Your task to perform on an android device: Search for pizza restaurants on Maps Image 0: 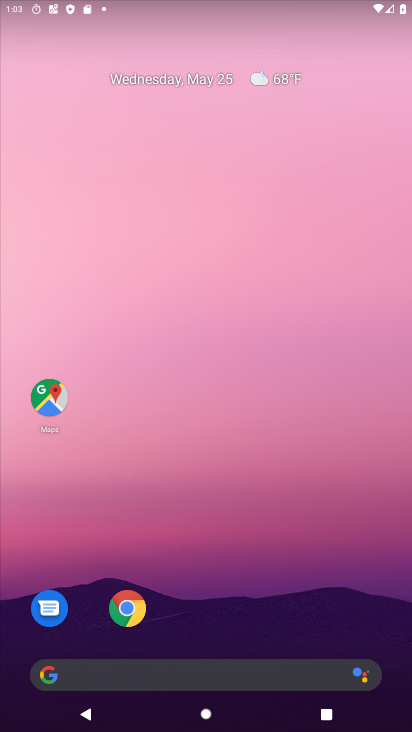
Step 0: click (59, 403)
Your task to perform on an android device: Search for pizza restaurants on Maps Image 1: 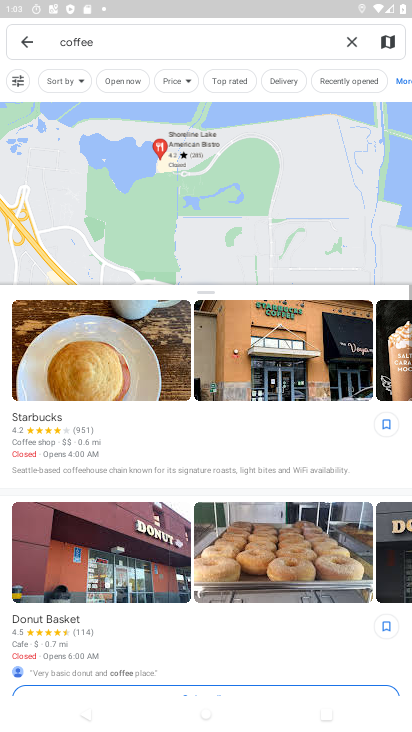
Step 1: click (124, 40)
Your task to perform on an android device: Search for pizza restaurants on Maps Image 2: 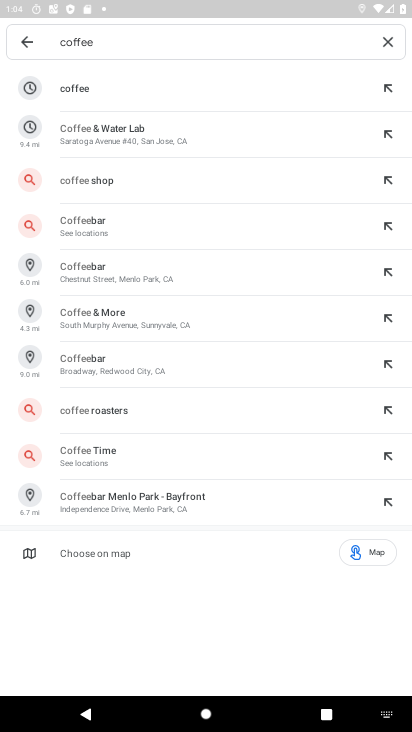
Step 2: click (90, 223)
Your task to perform on an android device: Search for pizza restaurants on Maps Image 3: 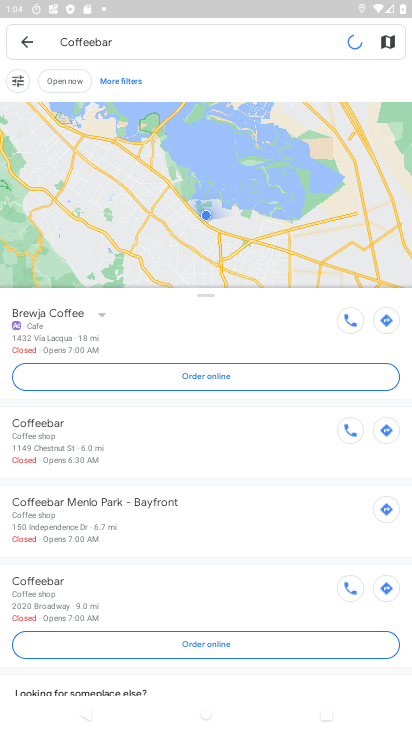
Step 3: click (104, 54)
Your task to perform on an android device: Search for pizza restaurants on Maps Image 4: 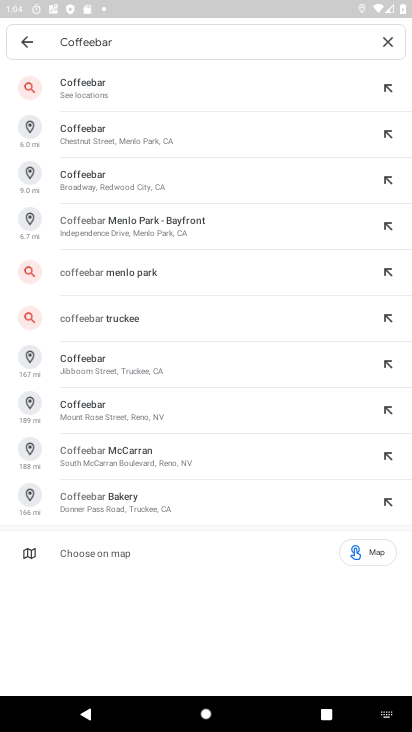
Step 4: click (386, 45)
Your task to perform on an android device: Search for pizza restaurants on Maps Image 5: 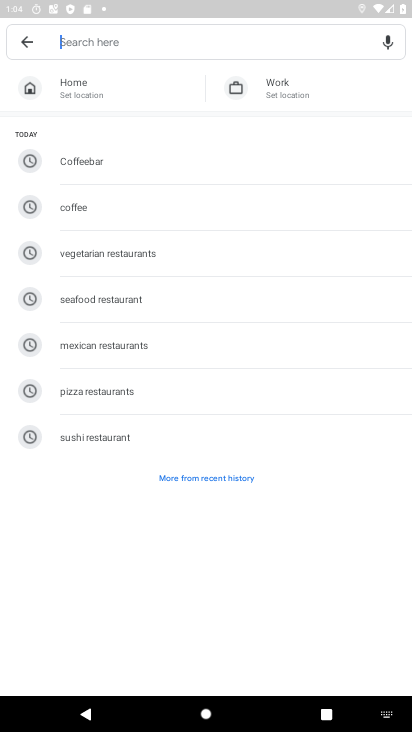
Step 5: click (108, 392)
Your task to perform on an android device: Search for pizza restaurants on Maps Image 6: 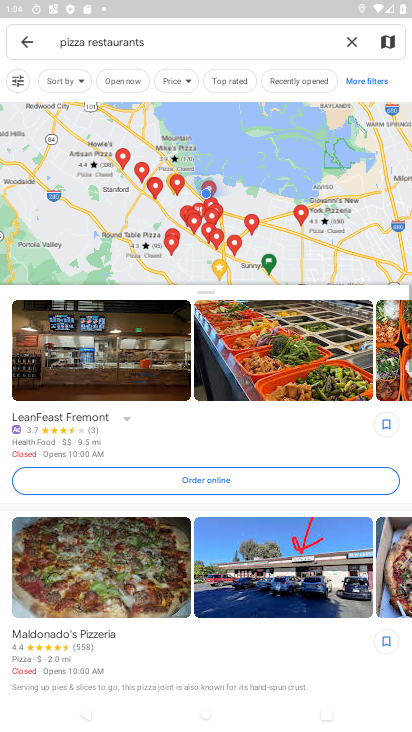
Step 6: task complete